Your task to perform on an android device: open app "Lyft - Rideshare, Bikes, Scooters & Transit" Image 0: 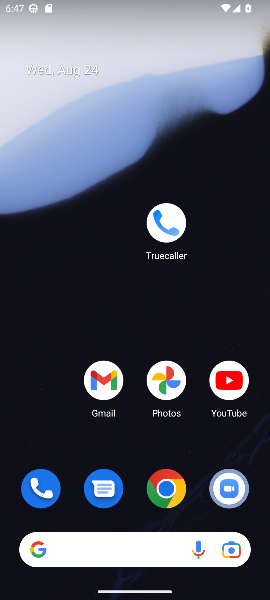
Step 0: drag from (122, 507) to (91, 164)
Your task to perform on an android device: open app "Lyft - Rideshare, Bikes, Scooters & Transit" Image 1: 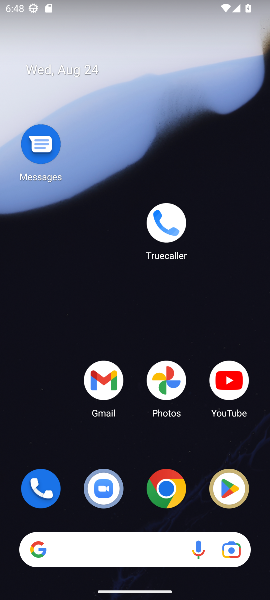
Step 1: click (240, 498)
Your task to perform on an android device: open app "Lyft - Rideshare, Bikes, Scooters & Transit" Image 2: 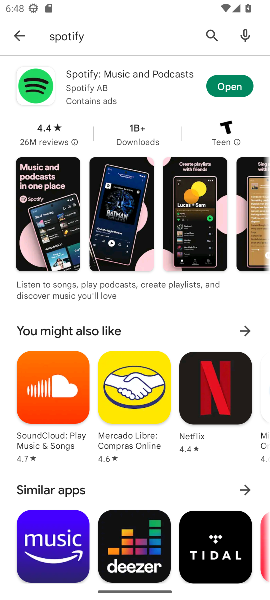
Step 2: click (213, 50)
Your task to perform on an android device: open app "Lyft - Rideshare, Bikes, Scooters & Transit" Image 3: 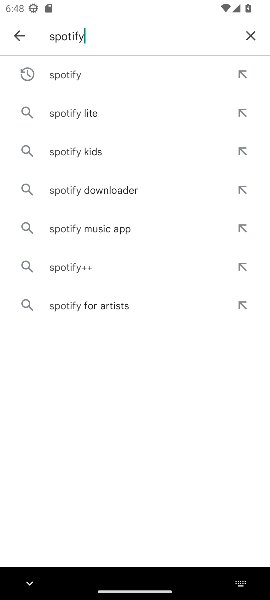
Step 3: click (244, 33)
Your task to perform on an android device: open app "Lyft - Rideshare, Bikes, Scooters & Transit" Image 4: 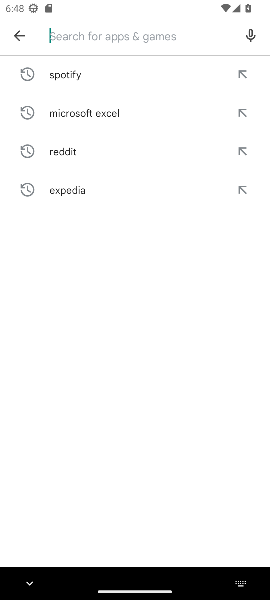
Step 4: type "lyst"
Your task to perform on an android device: open app "Lyft - Rideshare, Bikes, Scooters & Transit" Image 5: 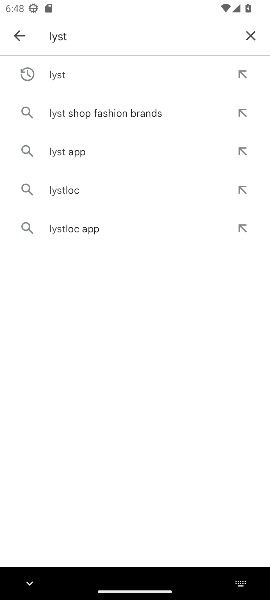
Step 5: click (85, 72)
Your task to perform on an android device: open app "Lyft - Rideshare, Bikes, Scooters & Transit" Image 6: 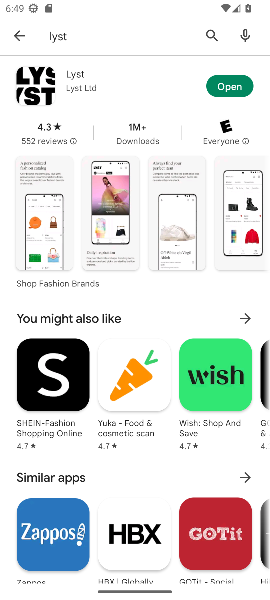
Step 6: click (211, 41)
Your task to perform on an android device: open app "Lyft - Rideshare, Bikes, Scooters & Transit" Image 7: 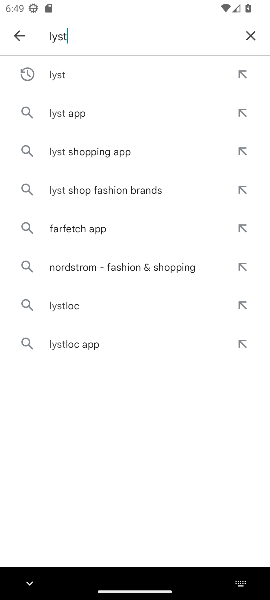
Step 7: click (155, 79)
Your task to perform on an android device: open app "Lyft - Rideshare, Bikes, Scooters & Transit" Image 8: 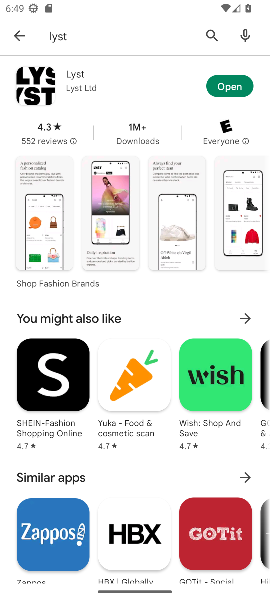
Step 8: click (239, 83)
Your task to perform on an android device: open app "Lyft - Rideshare, Bikes, Scooters & Transit" Image 9: 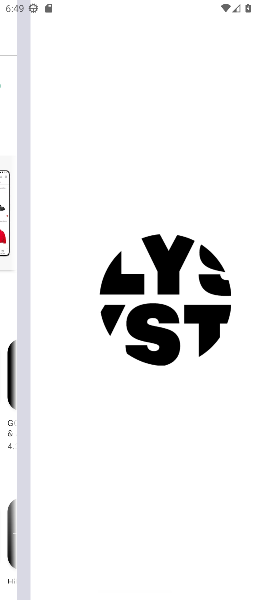
Step 9: task complete